Your task to perform on an android device: Open privacy settings Image 0: 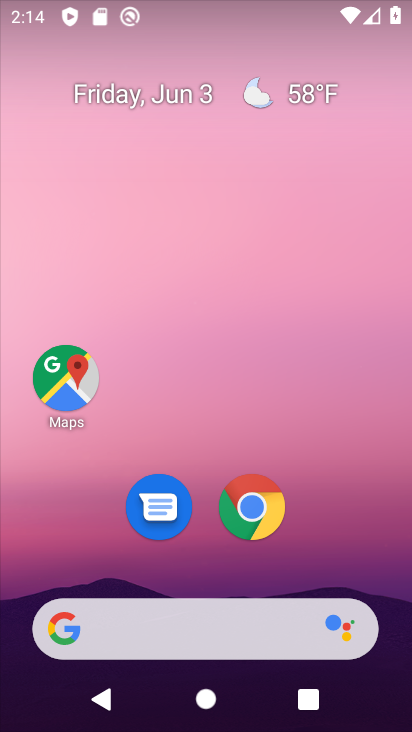
Step 0: click (252, 503)
Your task to perform on an android device: Open privacy settings Image 1: 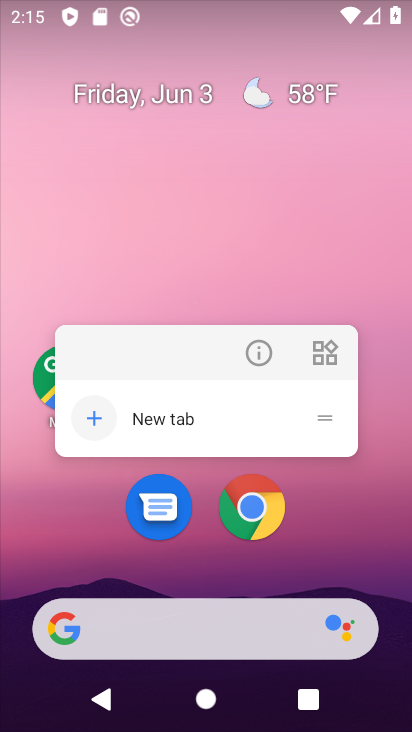
Step 1: click (249, 514)
Your task to perform on an android device: Open privacy settings Image 2: 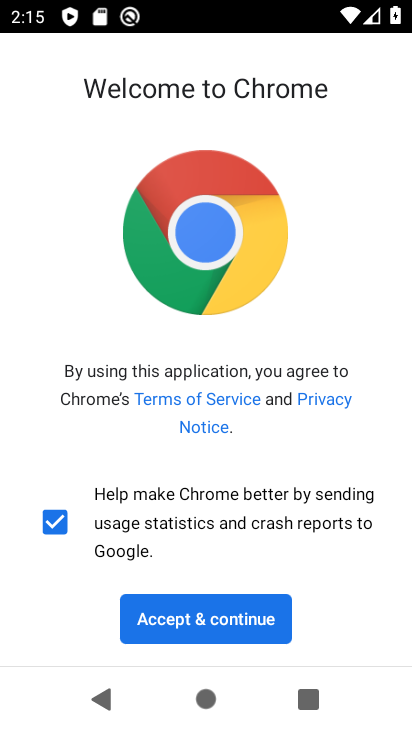
Step 2: click (240, 621)
Your task to perform on an android device: Open privacy settings Image 3: 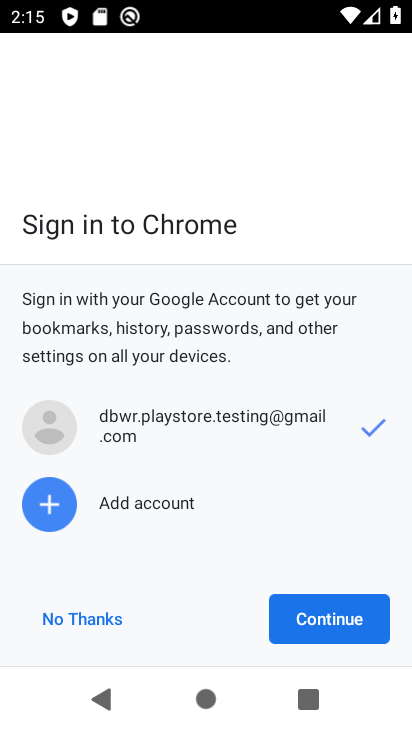
Step 3: click (316, 621)
Your task to perform on an android device: Open privacy settings Image 4: 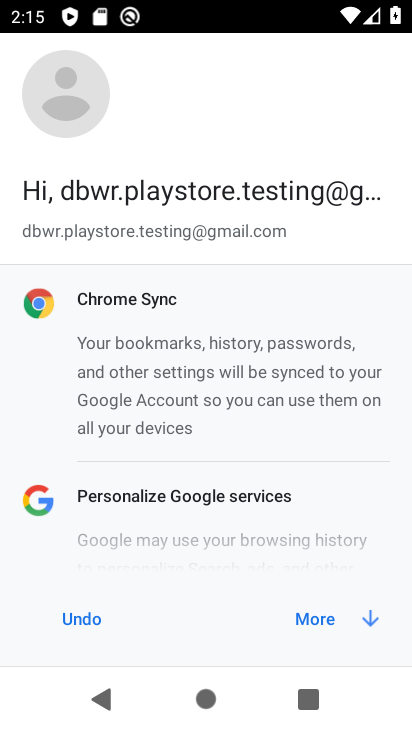
Step 4: click (316, 621)
Your task to perform on an android device: Open privacy settings Image 5: 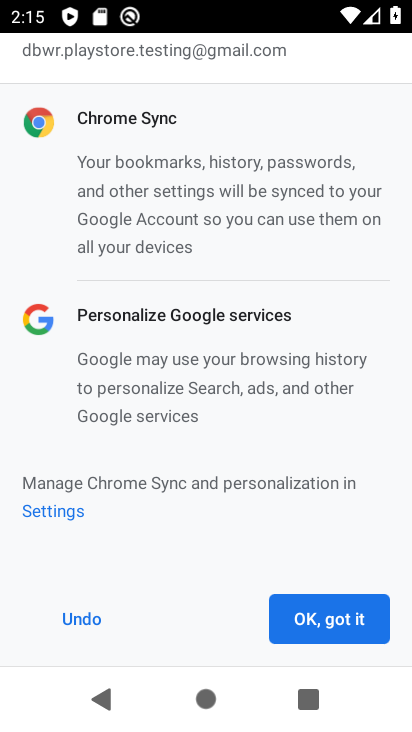
Step 5: click (316, 621)
Your task to perform on an android device: Open privacy settings Image 6: 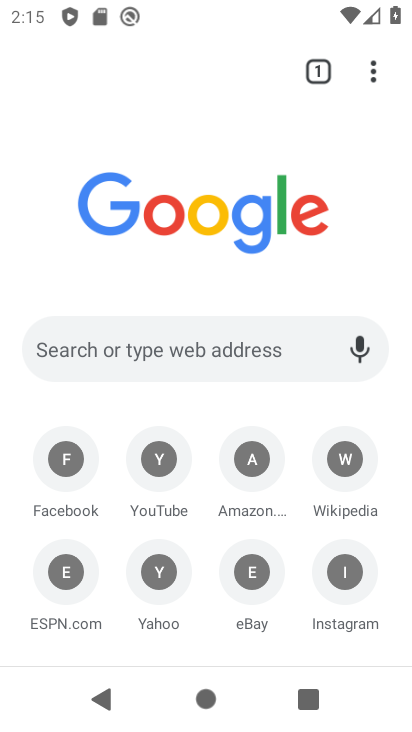
Step 6: click (372, 68)
Your task to perform on an android device: Open privacy settings Image 7: 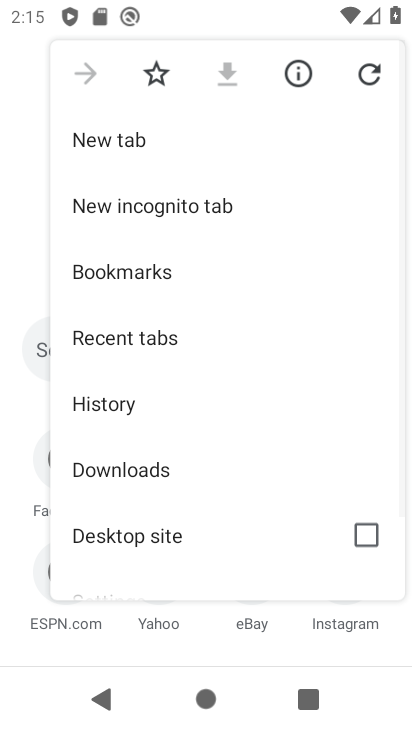
Step 7: drag from (235, 558) to (202, 142)
Your task to perform on an android device: Open privacy settings Image 8: 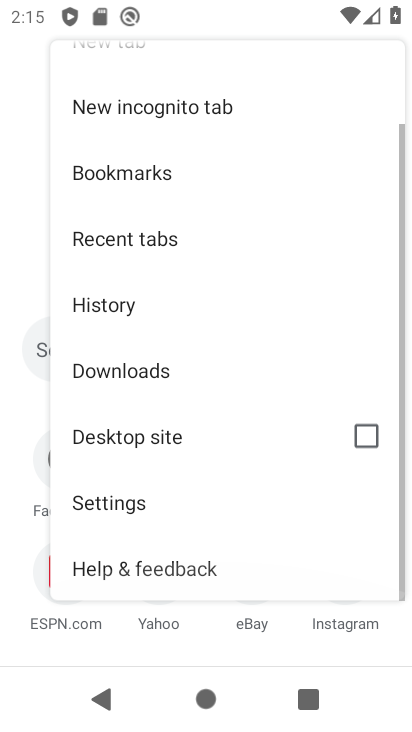
Step 8: click (134, 508)
Your task to perform on an android device: Open privacy settings Image 9: 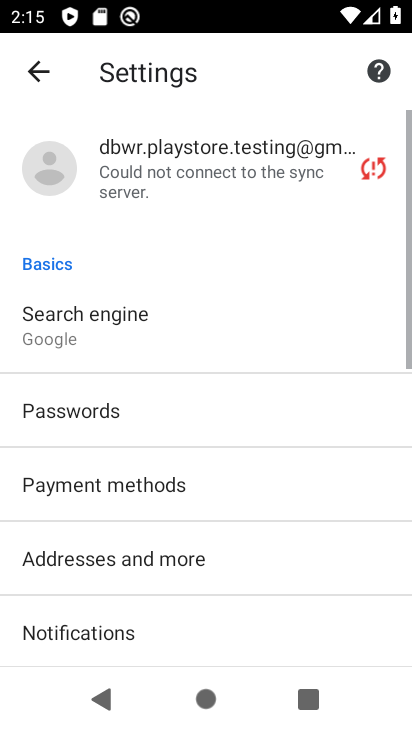
Step 9: drag from (181, 499) to (178, 108)
Your task to perform on an android device: Open privacy settings Image 10: 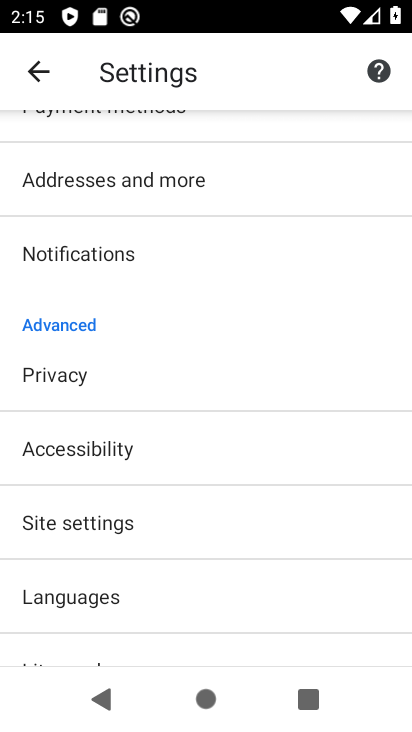
Step 10: click (75, 379)
Your task to perform on an android device: Open privacy settings Image 11: 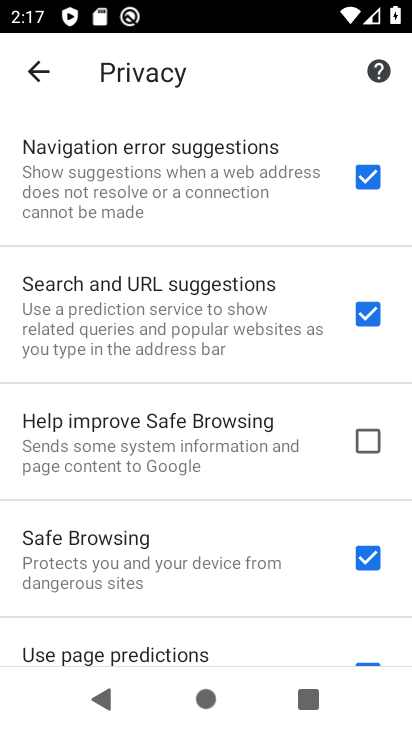
Step 11: task complete